Your task to perform on an android device: toggle priority inbox in the gmail app Image 0: 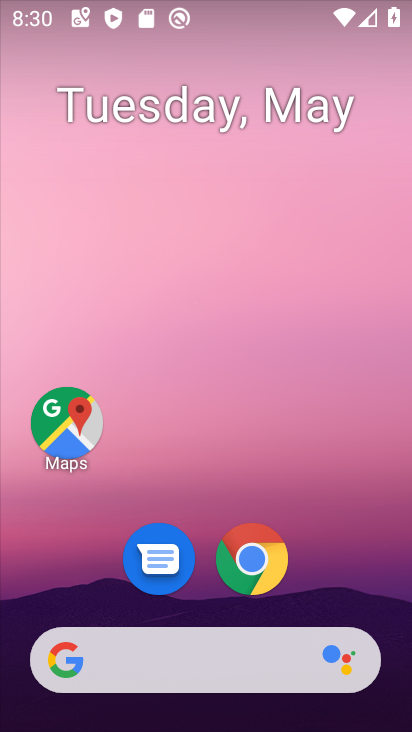
Step 0: drag from (340, 512) to (276, 209)
Your task to perform on an android device: toggle priority inbox in the gmail app Image 1: 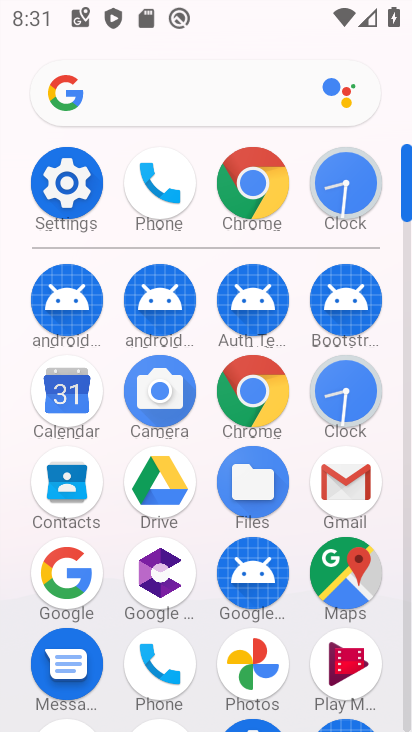
Step 1: click (362, 481)
Your task to perform on an android device: toggle priority inbox in the gmail app Image 2: 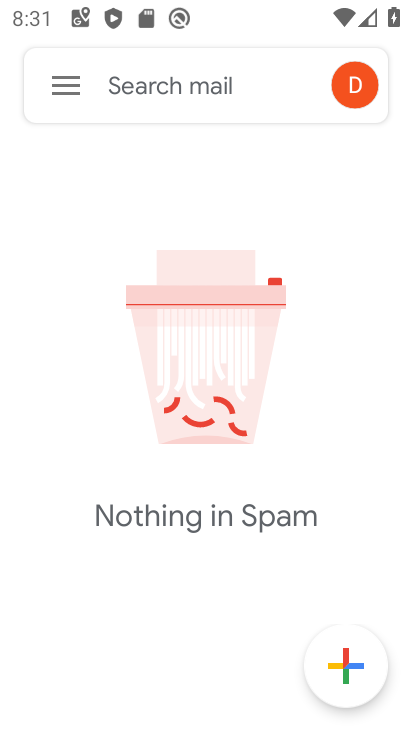
Step 2: click (67, 91)
Your task to perform on an android device: toggle priority inbox in the gmail app Image 3: 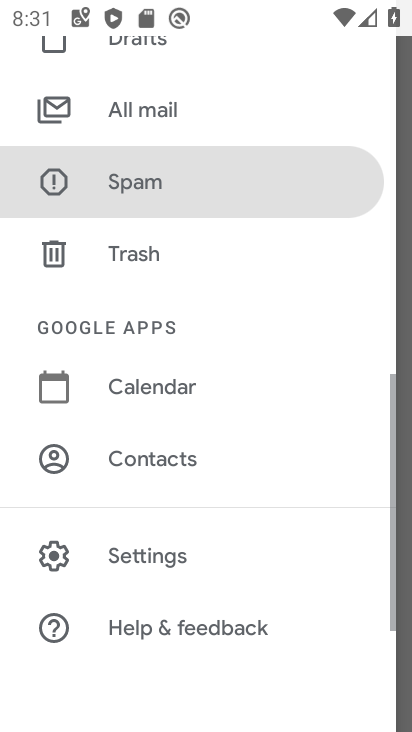
Step 3: click (121, 567)
Your task to perform on an android device: toggle priority inbox in the gmail app Image 4: 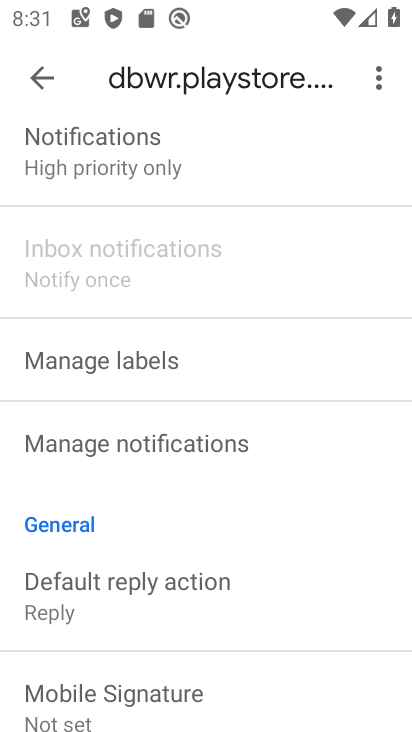
Step 4: click (133, 170)
Your task to perform on an android device: toggle priority inbox in the gmail app Image 5: 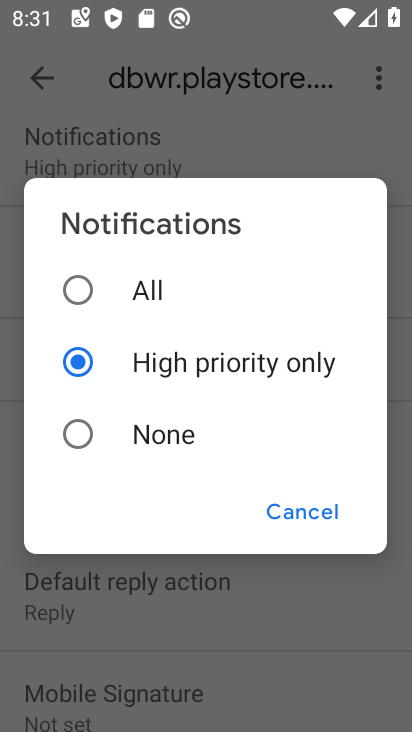
Step 5: click (290, 513)
Your task to perform on an android device: toggle priority inbox in the gmail app Image 6: 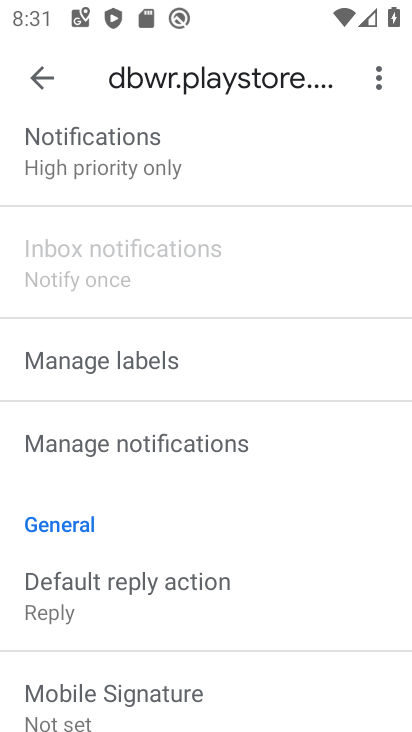
Step 6: drag from (189, 267) to (216, 640)
Your task to perform on an android device: toggle priority inbox in the gmail app Image 7: 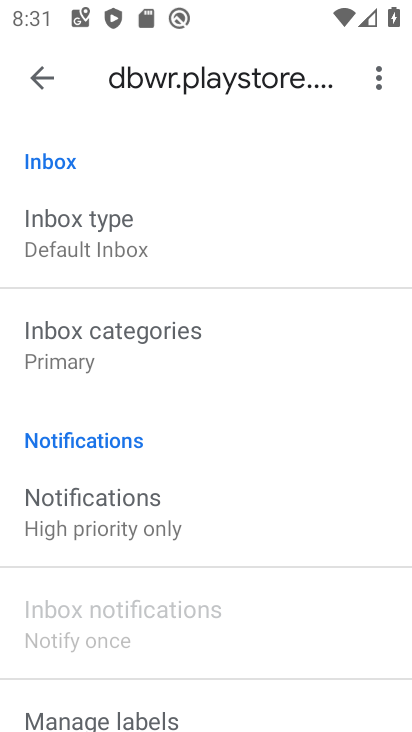
Step 7: drag from (117, 227) to (174, 554)
Your task to perform on an android device: toggle priority inbox in the gmail app Image 8: 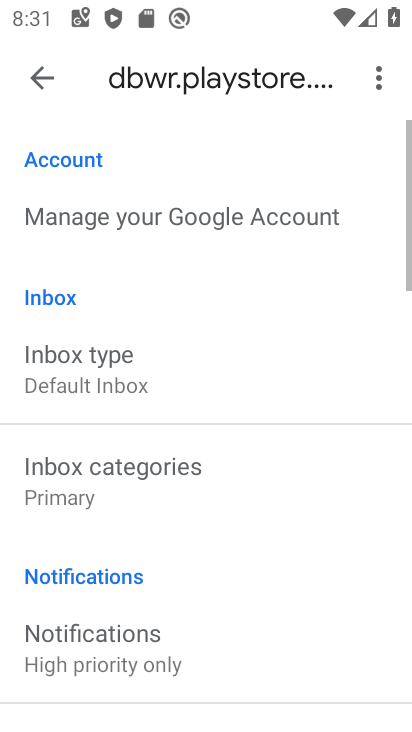
Step 8: click (80, 383)
Your task to perform on an android device: toggle priority inbox in the gmail app Image 9: 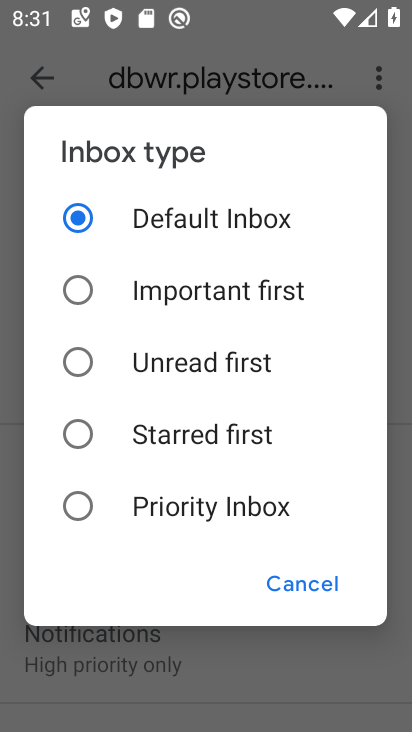
Step 9: click (126, 499)
Your task to perform on an android device: toggle priority inbox in the gmail app Image 10: 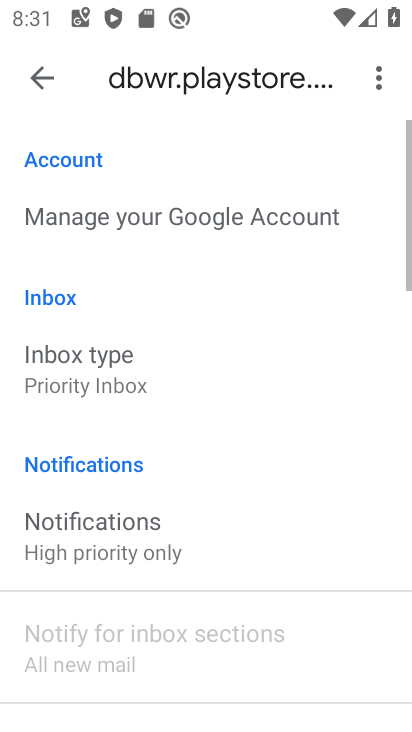
Step 10: task complete